Your task to perform on an android device: Go to CNN.com Image 0: 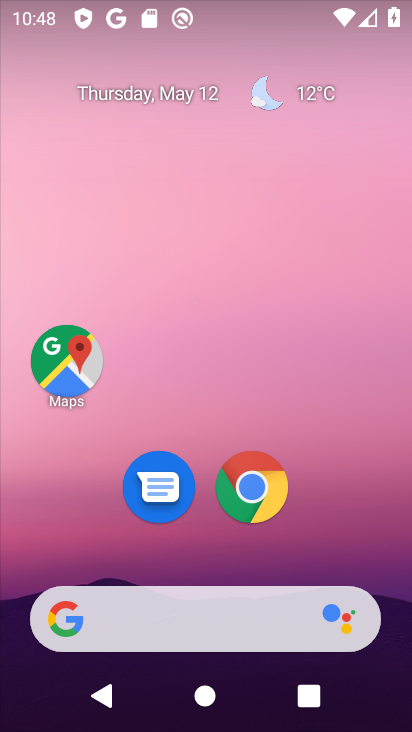
Step 0: click (263, 499)
Your task to perform on an android device: Go to CNN.com Image 1: 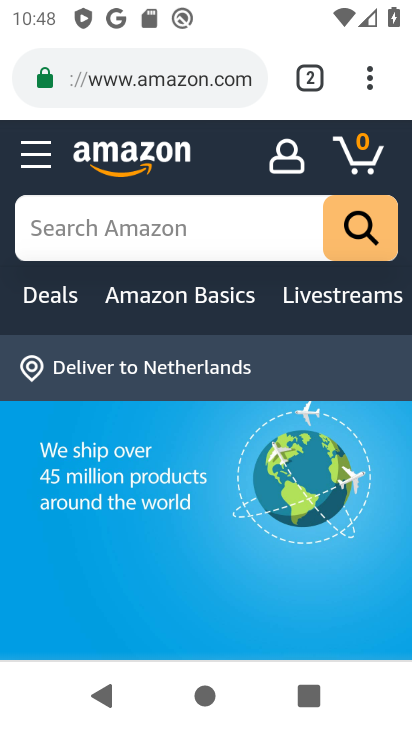
Step 1: click (105, 84)
Your task to perform on an android device: Go to CNN.com Image 2: 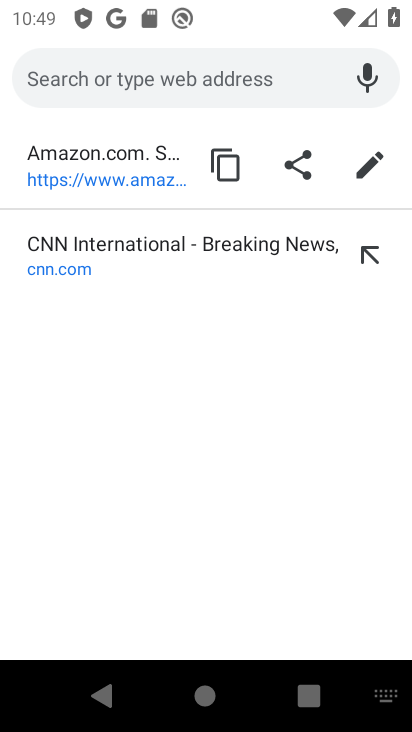
Step 2: click (61, 242)
Your task to perform on an android device: Go to CNN.com Image 3: 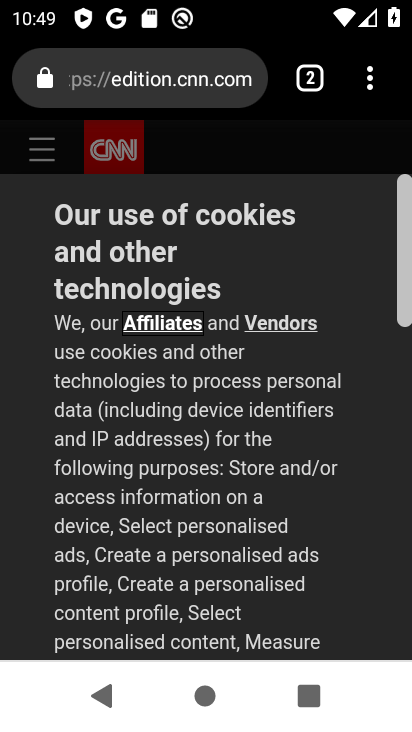
Step 3: task complete